Your task to perform on an android device: find which apps use the phone's location Image 0: 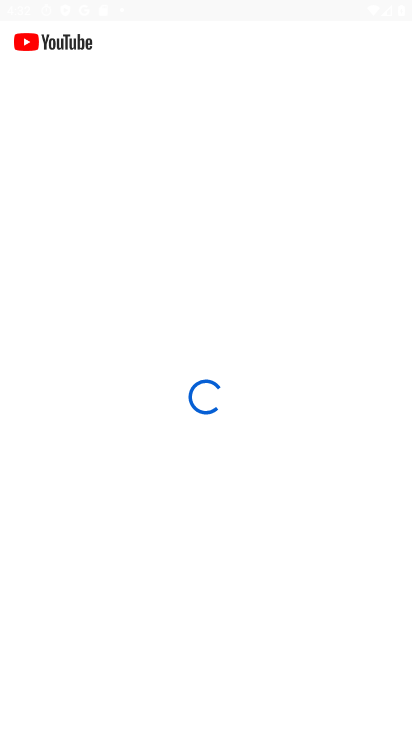
Step 0: click (265, 51)
Your task to perform on an android device: find which apps use the phone's location Image 1: 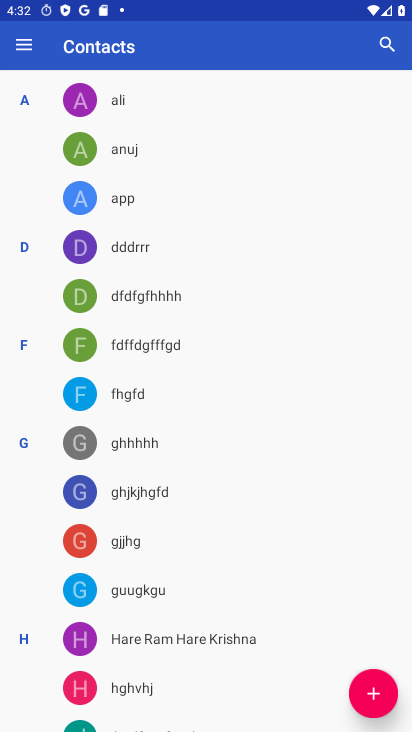
Step 1: press home button
Your task to perform on an android device: find which apps use the phone's location Image 2: 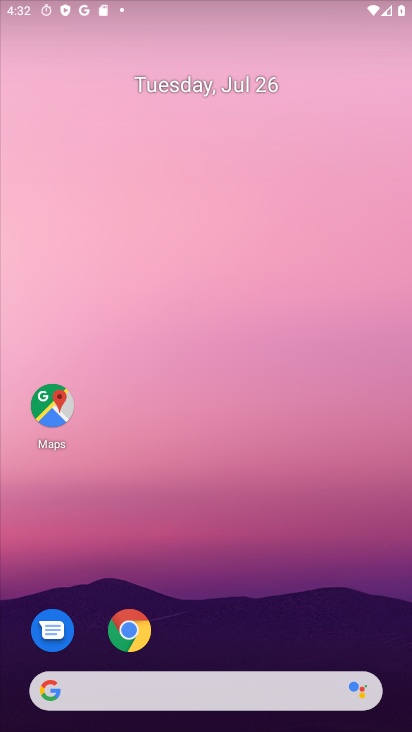
Step 2: drag from (318, 487) to (224, 18)
Your task to perform on an android device: find which apps use the phone's location Image 3: 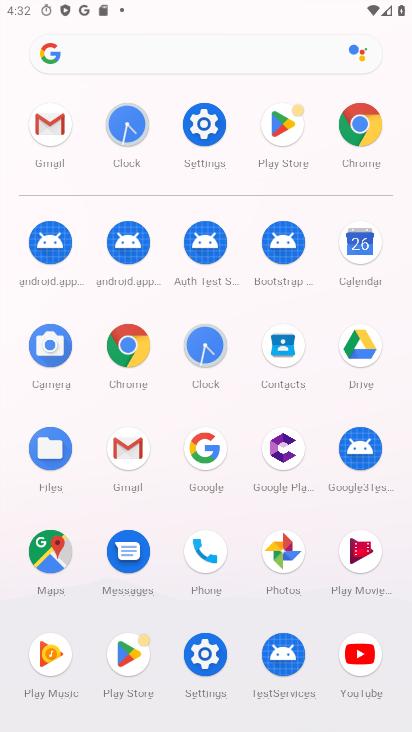
Step 3: click (200, 652)
Your task to perform on an android device: find which apps use the phone's location Image 4: 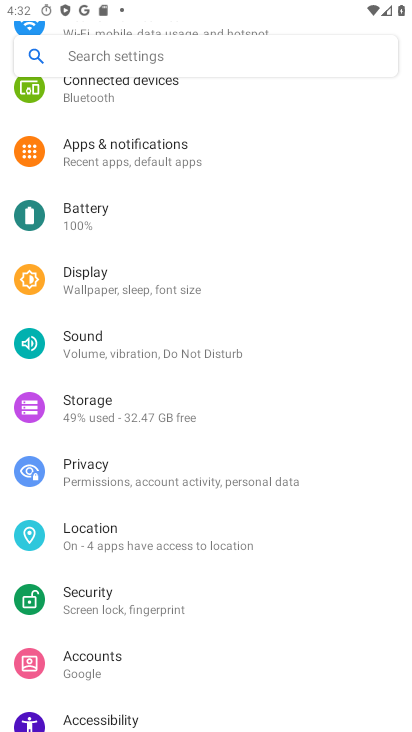
Step 4: click (125, 555)
Your task to perform on an android device: find which apps use the phone's location Image 5: 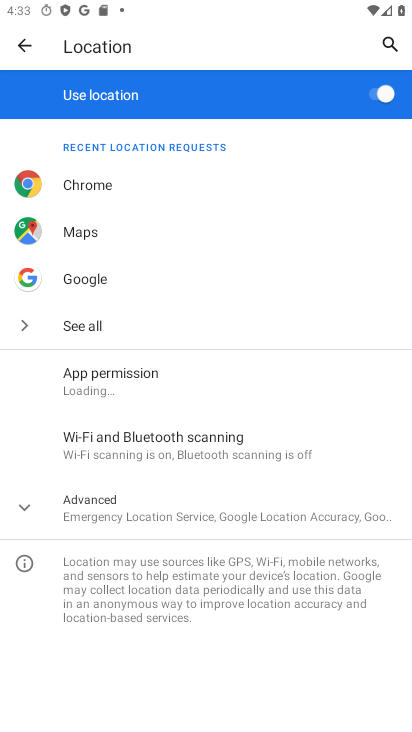
Step 5: click (135, 387)
Your task to perform on an android device: find which apps use the phone's location Image 6: 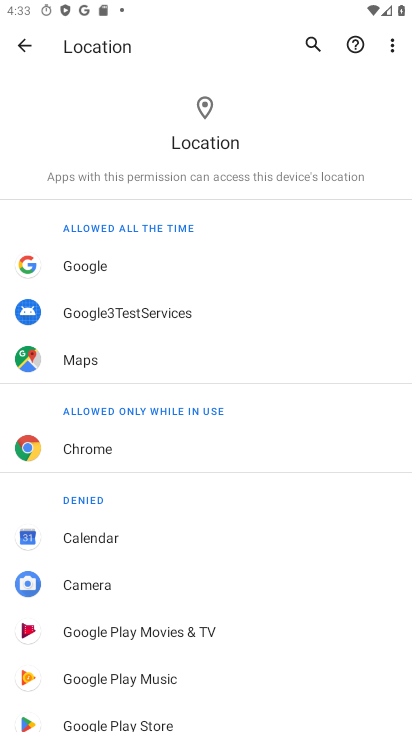
Step 6: task complete